Your task to perform on an android device: What's a good restaurant near me? Image 0: 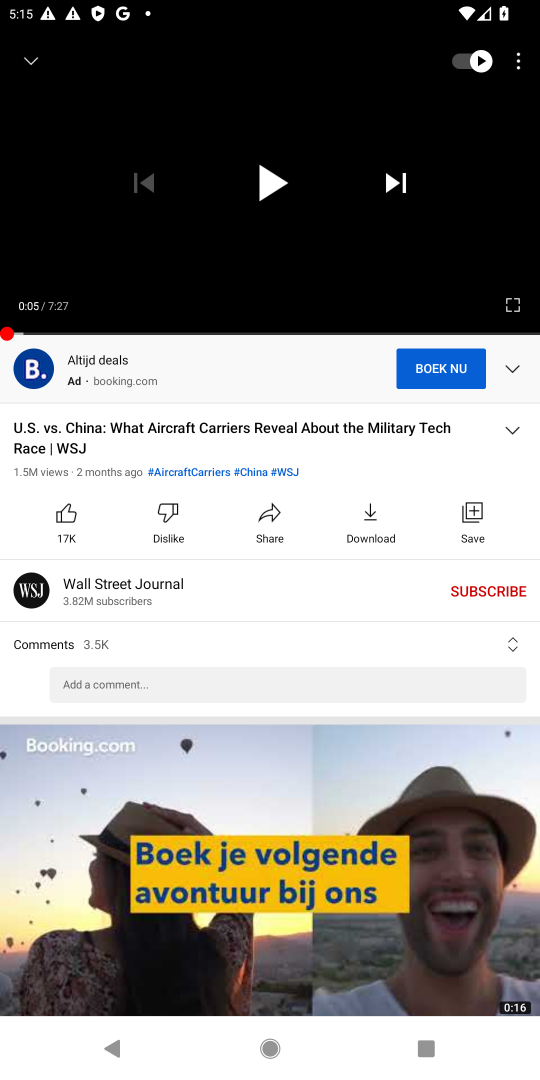
Step 0: press home button
Your task to perform on an android device: What's a good restaurant near me? Image 1: 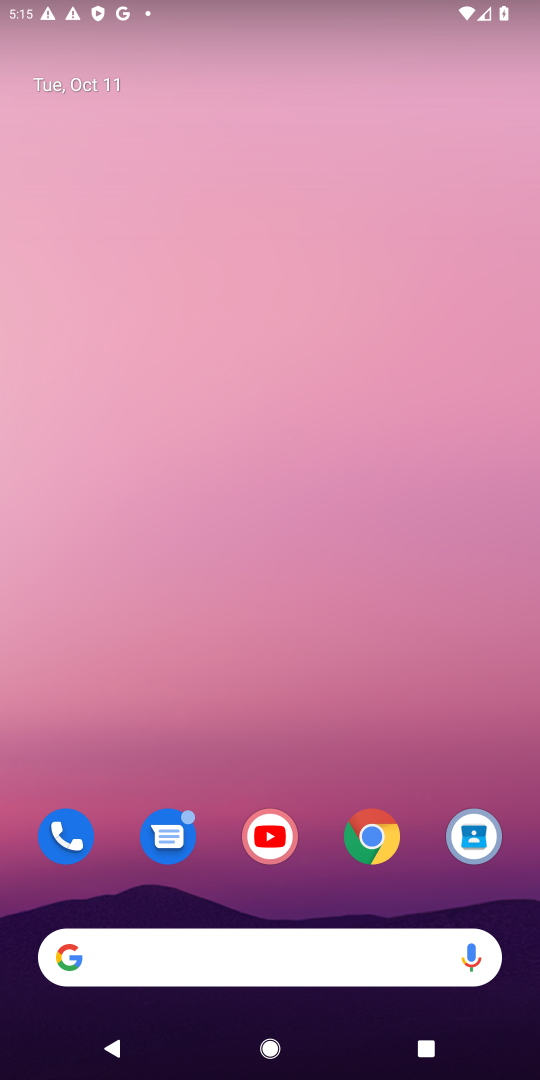
Step 1: click (367, 838)
Your task to perform on an android device: What's a good restaurant near me? Image 2: 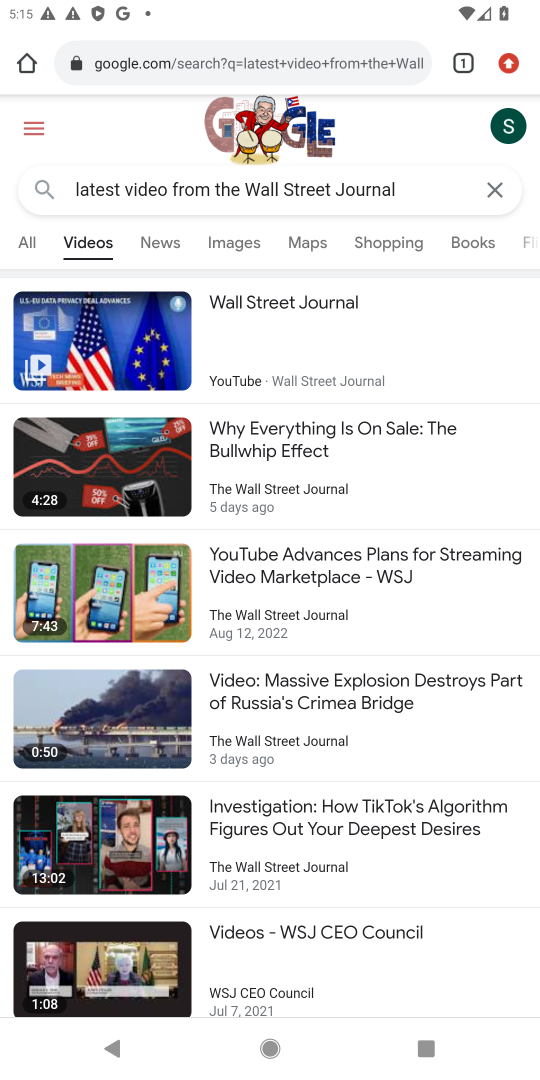
Step 2: click (341, 62)
Your task to perform on an android device: What's a good restaurant near me? Image 3: 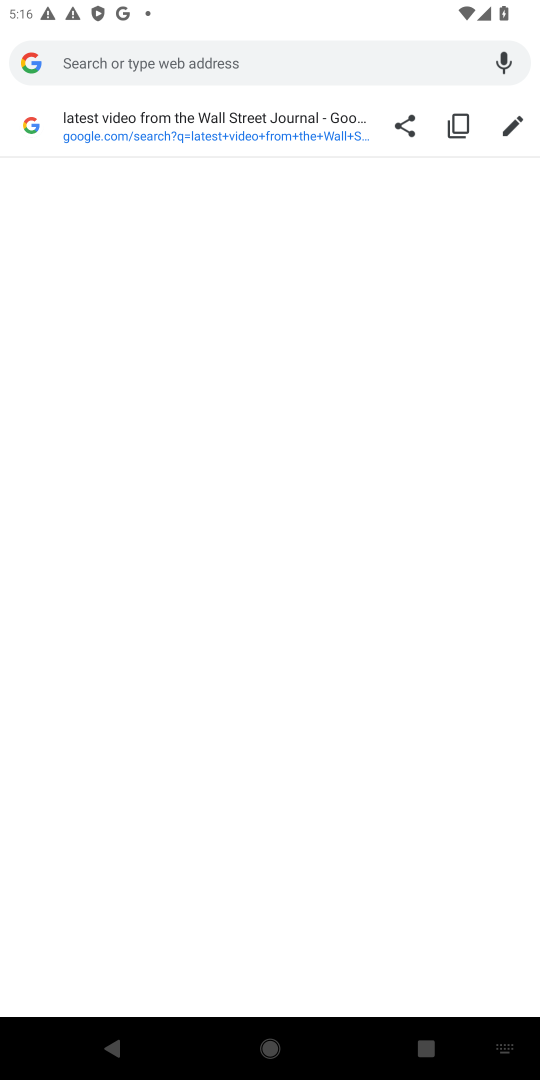
Step 3: type "good restaurant near me"
Your task to perform on an android device: What's a good restaurant near me? Image 4: 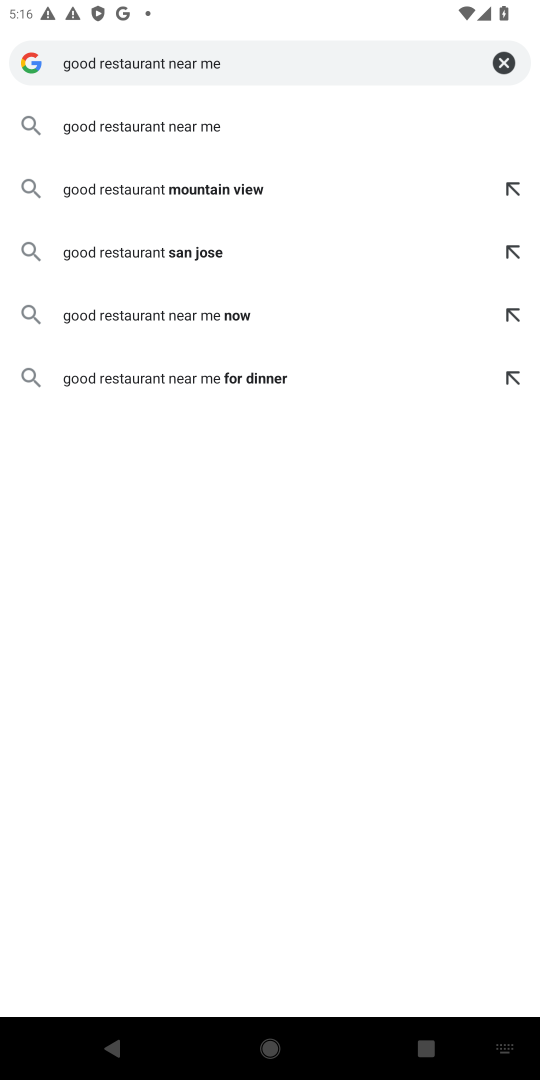
Step 4: click (165, 132)
Your task to perform on an android device: What's a good restaurant near me? Image 5: 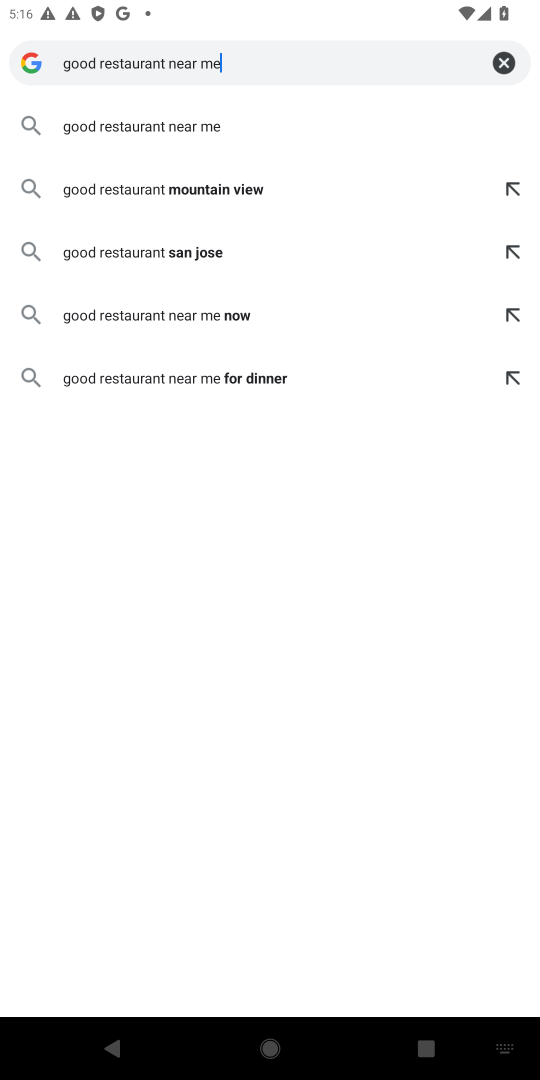
Step 5: click (124, 122)
Your task to perform on an android device: What's a good restaurant near me? Image 6: 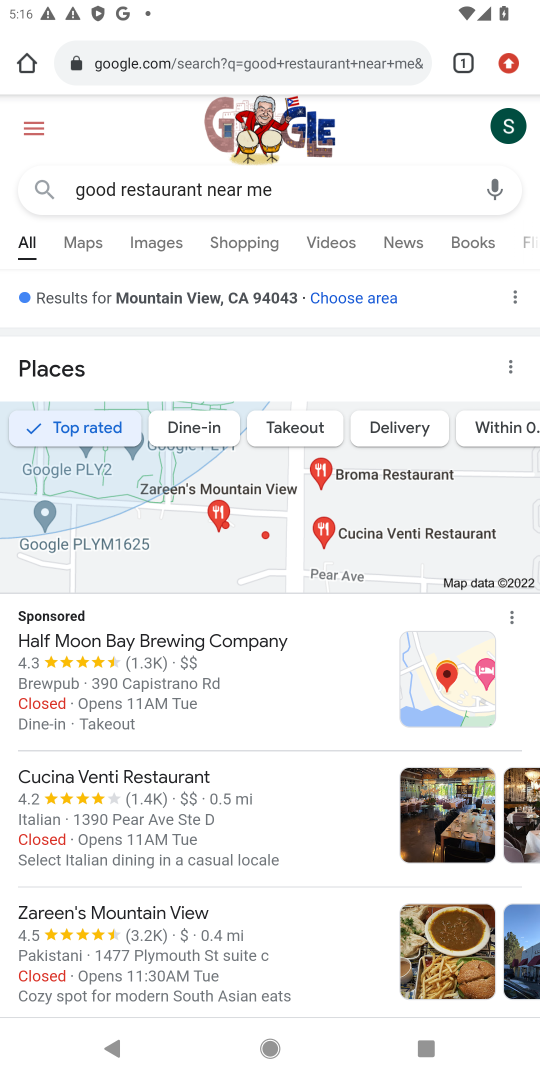
Step 6: drag from (228, 908) to (354, 213)
Your task to perform on an android device: What's a good restaurant near me? Image 7: 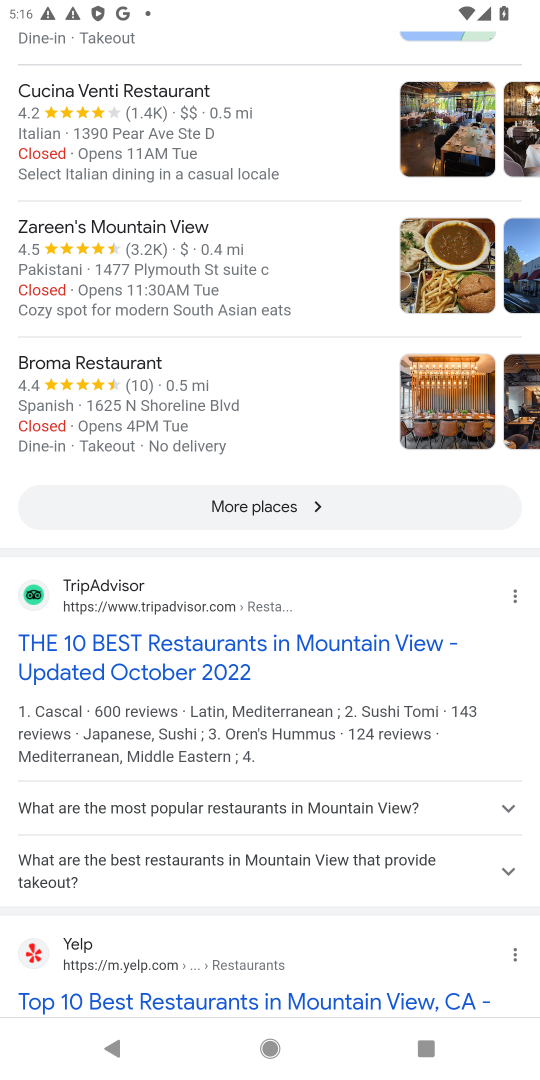
Step 7: click (269, 500)
Your task to perform on an android device: What's a good restaurant near me? Image 8: 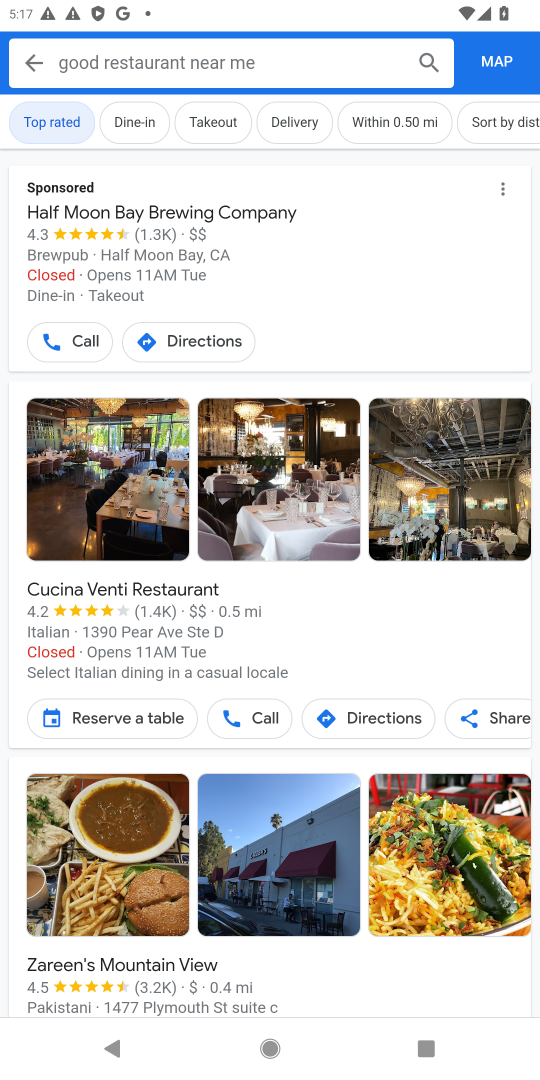
Step 8: task complete